Your task to perform on an android device: Set the phone to "Do not disturb". Image 0: 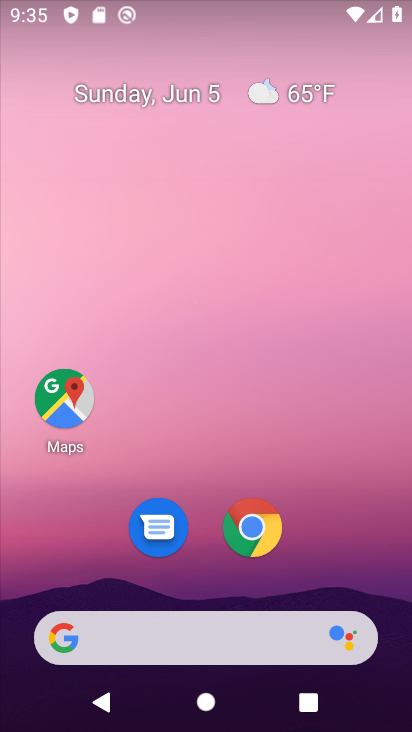
Step 0: drag from (203, 13) to (201, 569)
Your task to perform on an android device: Set the phone to "Do not disturb". Image 1: 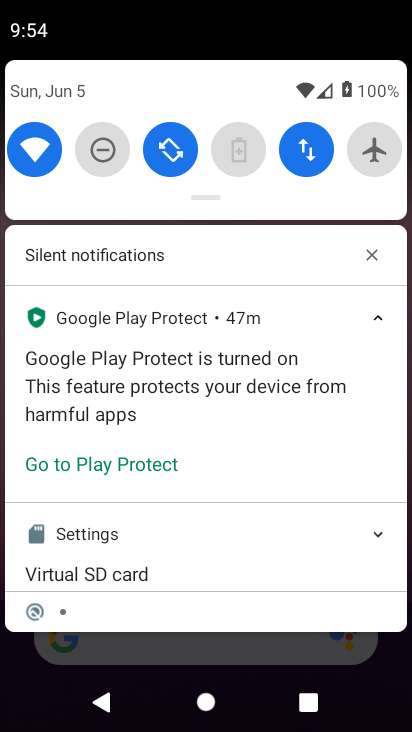
Step 1: click (106, 151)
Your task to perform on an android device: Set the phone to "Do not disturb". Image 2: 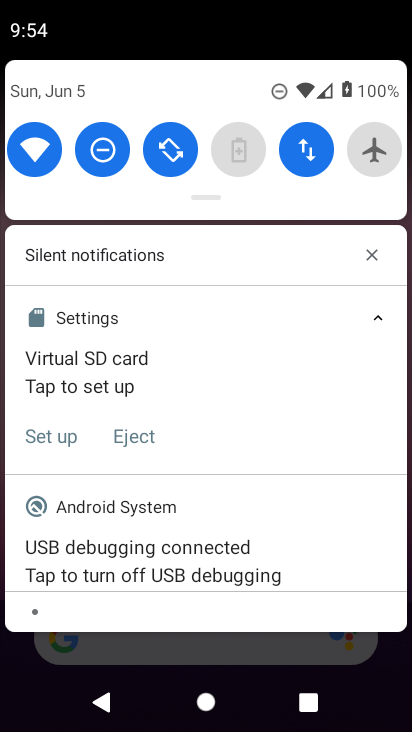
Step 2: task complete